Your task to perform on an android device: check android version Image 0: 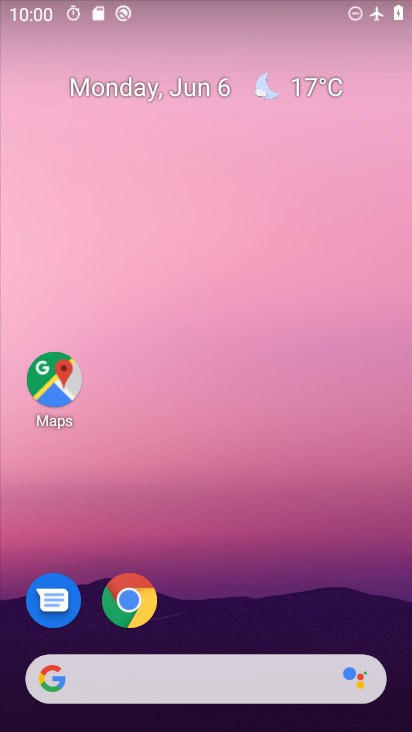
Step 0: drag from (307, 579) to (227, 1)
Your task to perform on an android device: check android version Image 1: 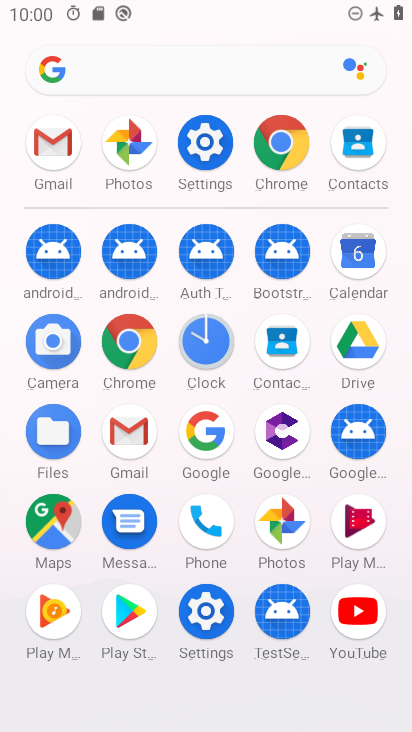
Step 1: click (199, 143)
Your task to perform on an android device: check android version Image 2: 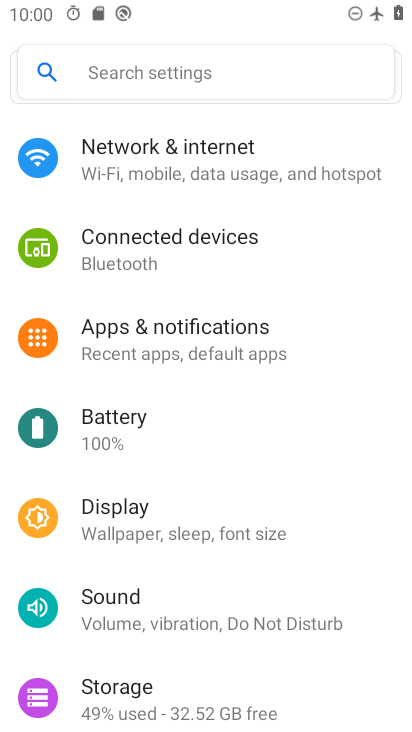
Step 2: drag from (255, 654) to (198, 33)
Your task to perform on an android device: check android version Image 3: 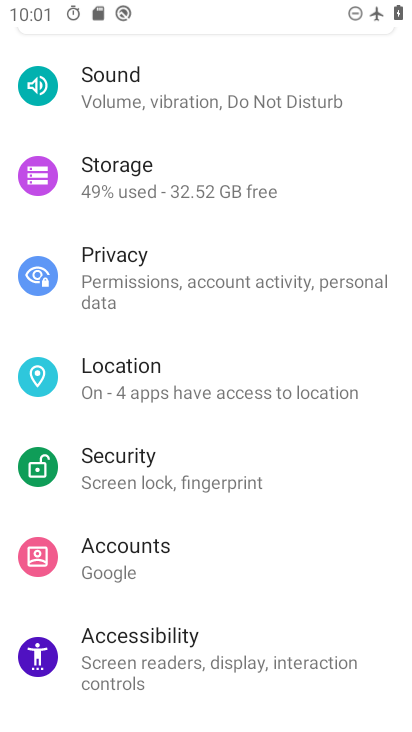
Step 3: drag from (184, 673) to (214, 95)
Your task to perform on an android device: check android version Image 4: 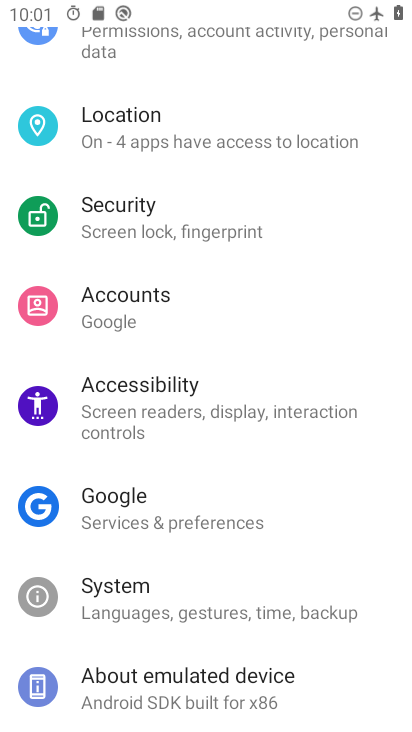
Step 4: click (237, 691)
Your task to perform on an android device: check android version Image 5: 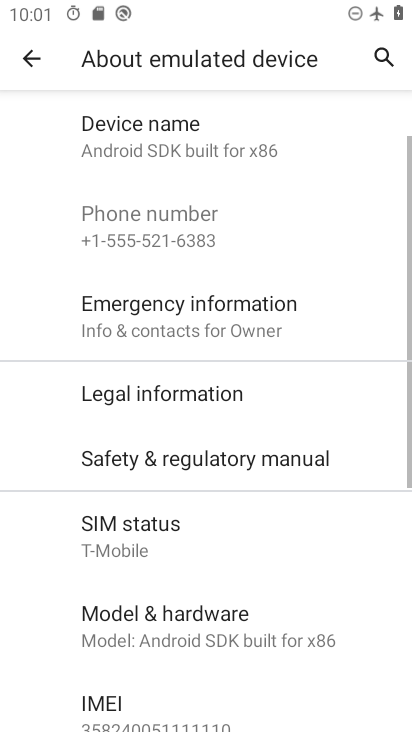
Step 5: drag from (247, 657) to (244, 271)
Your task to perform on an android device: check android version Image 6: 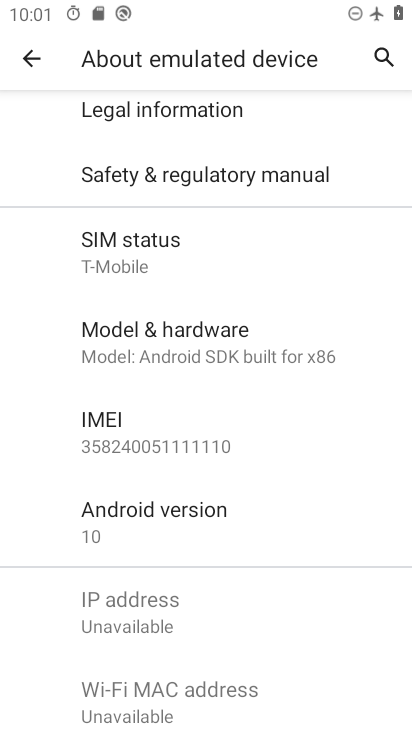
Step 6: click (210, 532)
Your task to perform on an android device: check android version Image 7: 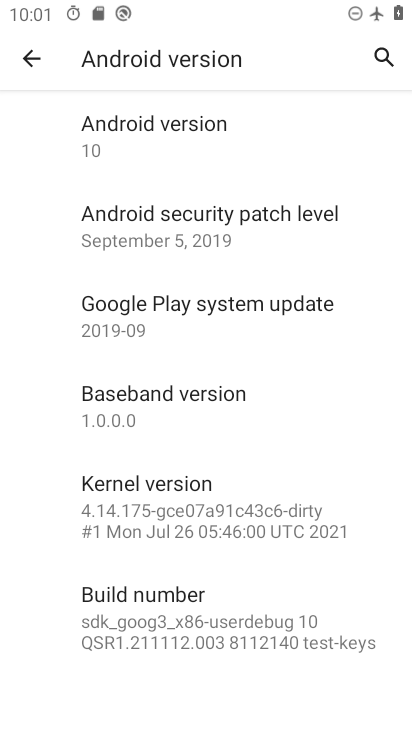
Step 7: task complete